Your task to perform on an android device: Open calendar and show me the first week of next month Image 0: 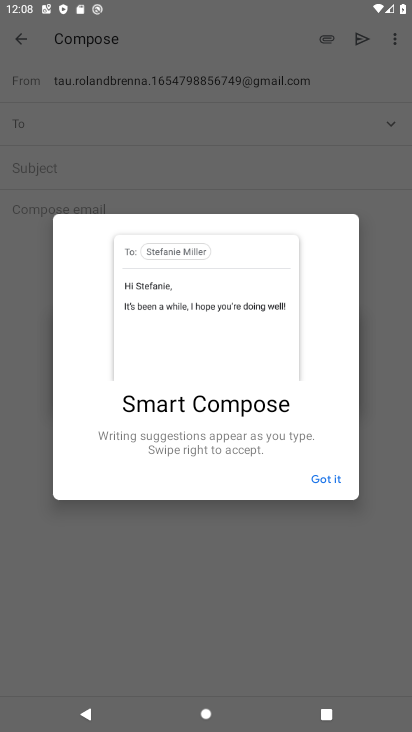
Step 0: drag from (384, 624) to (389, 568)
Your task to perform on an android device: Open calendar and show me the first week of next month Image 1: 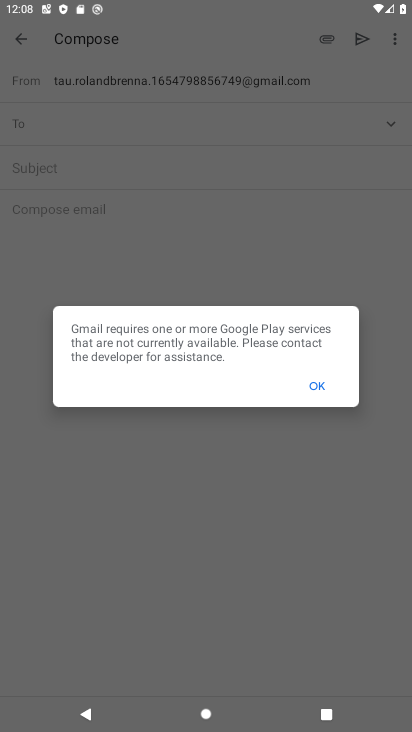
Step 1: press home button
Your task to perform on an android device: Open calendar and show me the first week of next month Image 2: 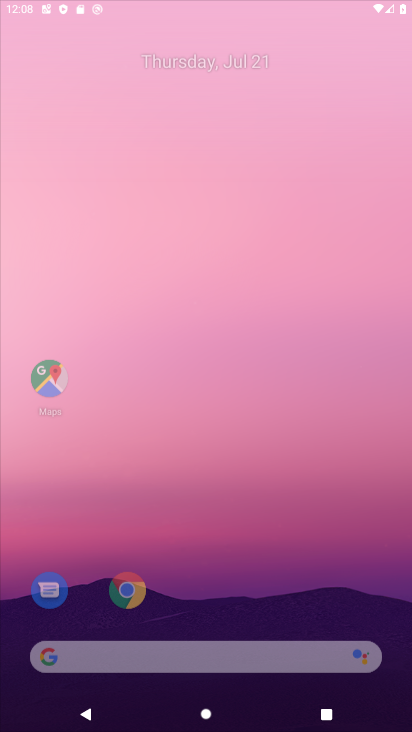
Step 2: drag from (397, 677) to (180, 81)
Your task to perform on an android device: Open calendar and show me the first week of next month Image 3: 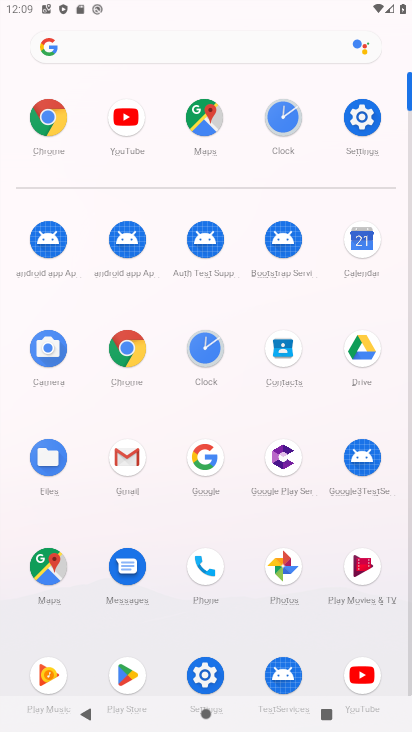
Step 3: click (357, 269)
Your task to perform on an android device: Open calendar and show me the first week of next month Image 4: 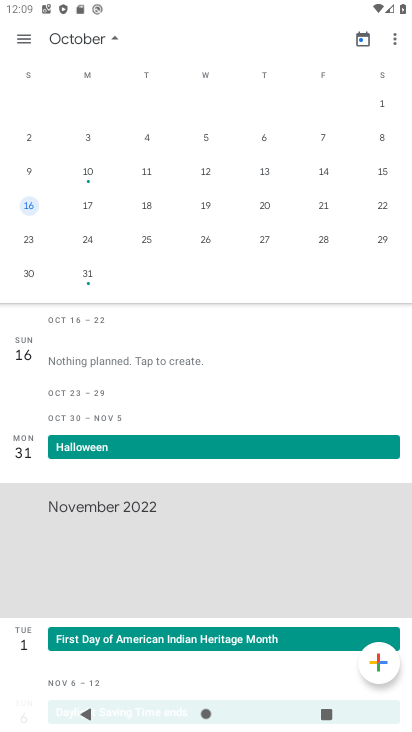
Step 4: drag from (391, 178) to (5, 193)
Your task to perform on an android device: Open calendar and show me the first week of next month Image 5: 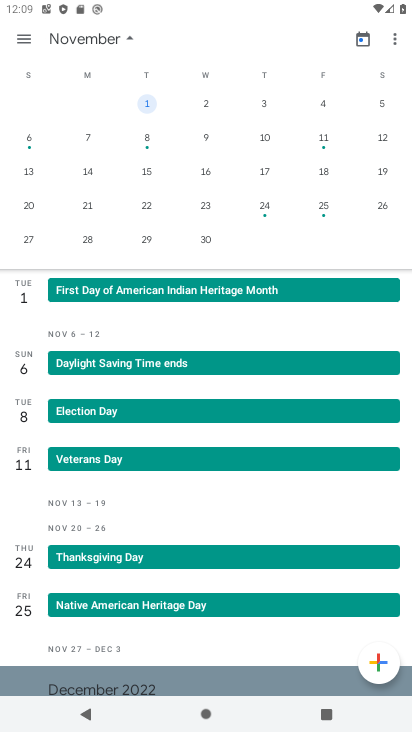
Step 5: click (29, 143)
Your task to perform on an android device: Open calendar and show me the first week of next month Image 6: 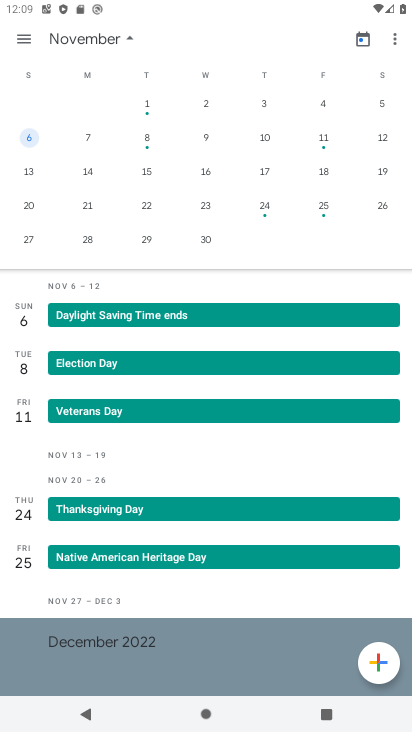
Step 6: task complete